Your task to perform on an android device: check android version Image 0: 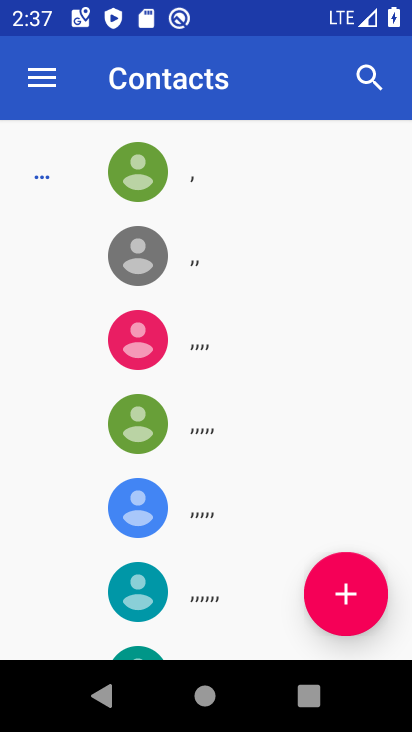
Step 0: press home button
Your task to perform on an android device: check android version Image 1: 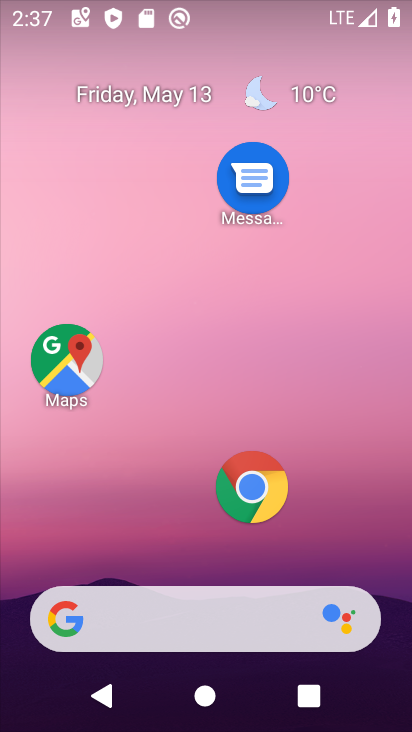
Step 1: drag from (176, 558) to (235, 198)
Your task to perform on an android device: check android version Image 2: 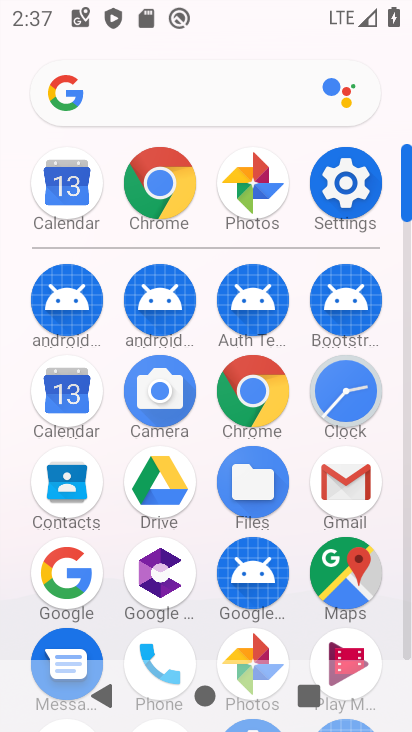
Step 2: click (350, 184)
Your task to perform on an android device: check android version Image 3: 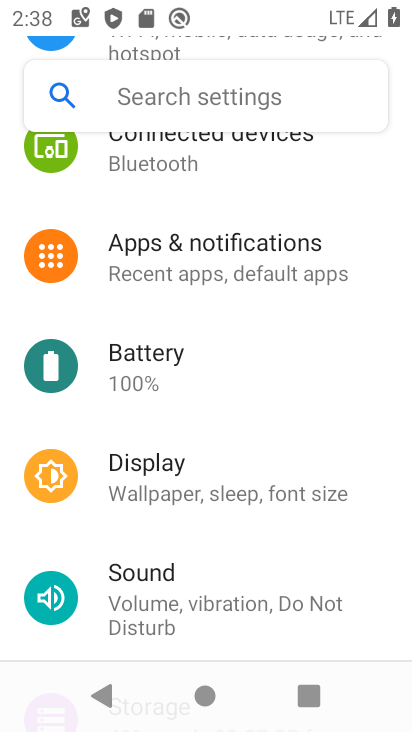
Step 3: drag from (207, 614) to (309, 164)
Your task to perform on an android device: check android version Image 4: 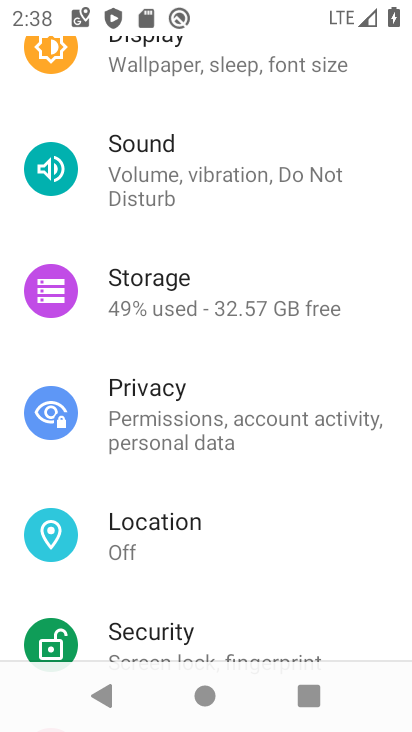
Step 4: drag from (225, 594) to (313, 139)
Your task to perform on an android device: check android version Image 5: 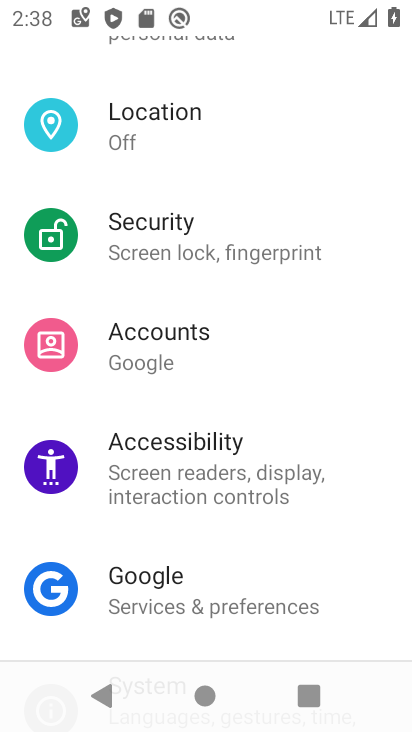
Step 5: drag from (227, 626) to (333, 140)
Your task to perform on an android device: check android version Image 6: 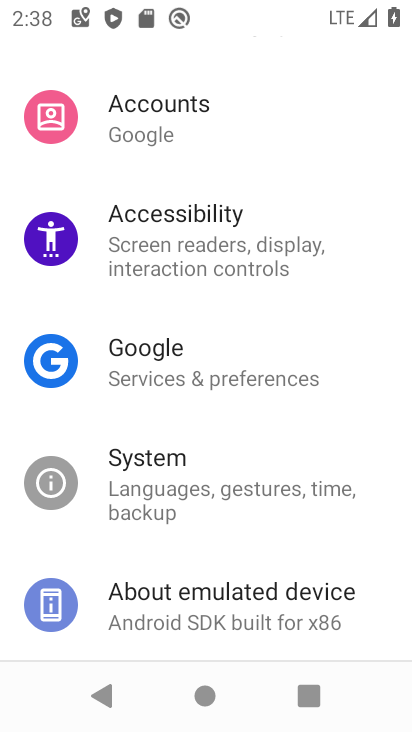
Step 6: click (199, 603)
Your task to perform on an android device: check android version Image 7: 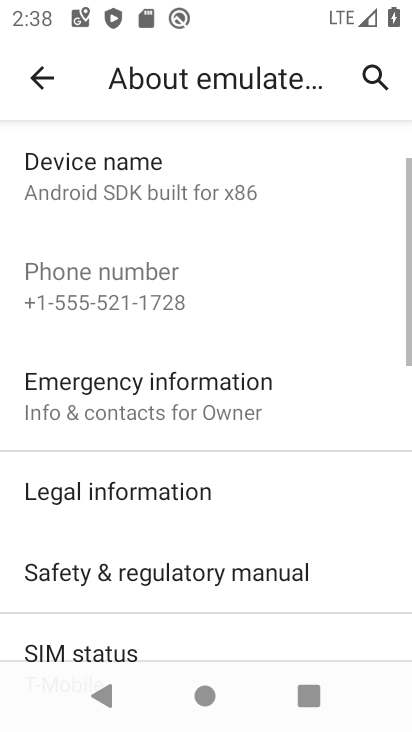
Step 7: drag from (151, 613) to (203, 216)
Your task to perform on an android device: check android version Image 8: 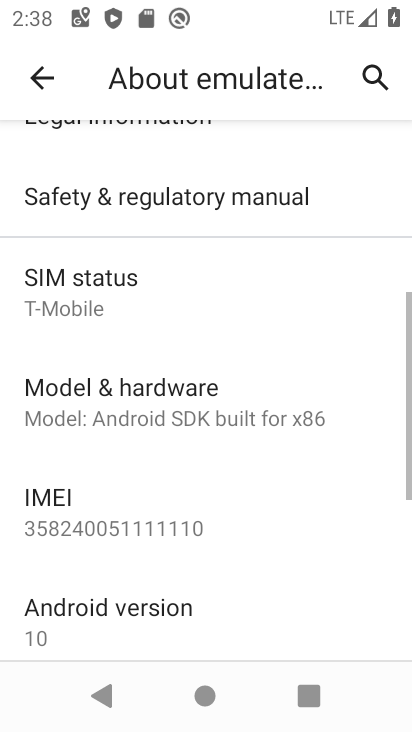
Step 8: drag from (176, 568) to (270, 185)
Your task to perform on an android device: check android version Image 9: 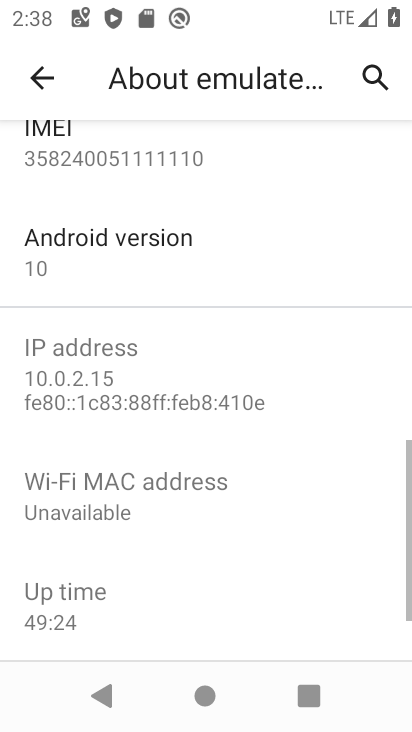
Step 9: drag from (154, 286) to (154, 355)
Your task to perform on an android device: check android version Image 10: 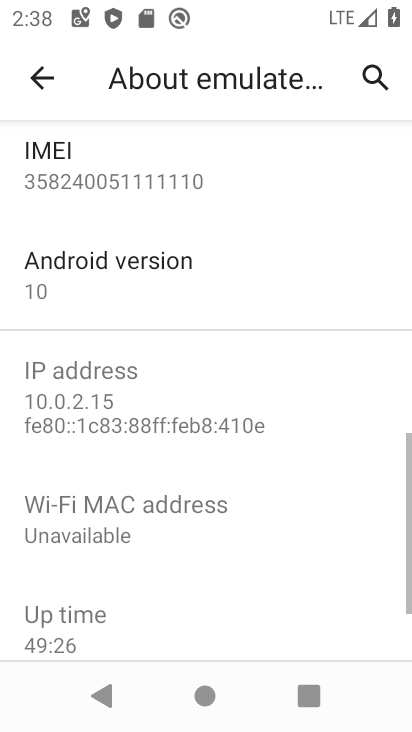
Step 10: click (107, 276)
Your task to perform on an android device: check android version Image 11: 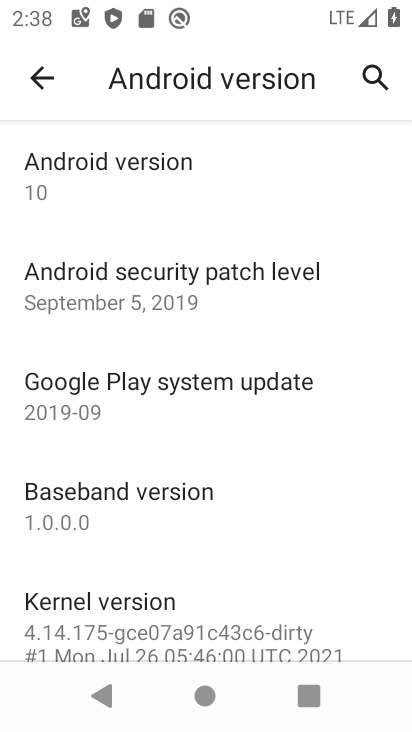
Step 11: task complete